Your task to perform on an android device: turn off wifi Image 0: 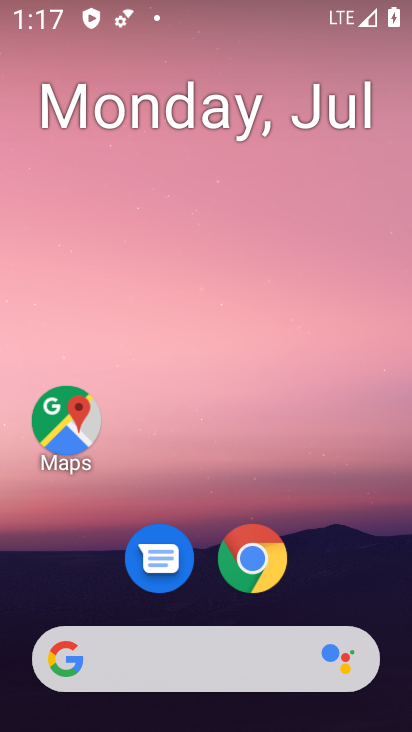
Step 0: drag from (360, 578) to (349, 52)
Your task to perform on an android device: turn off wifi Image 1: 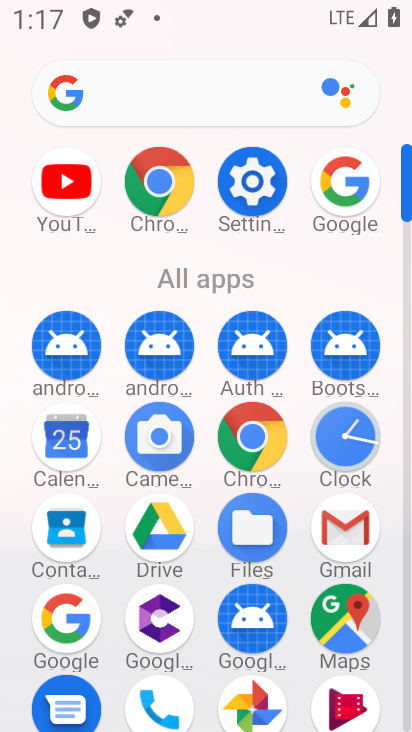
Step 1: click (257, 193)
Your task to perform on an android device: turn off wifi Image 2: 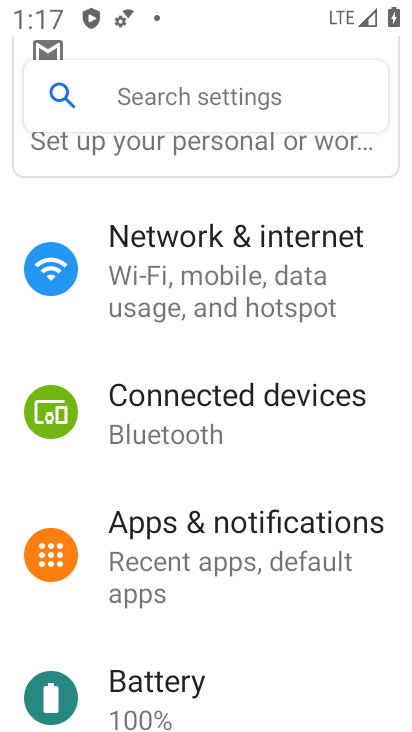
Step 2: drag from (367, 619) to (361, 468)
Your task to perform on an android device: turn off wifi Image 3: 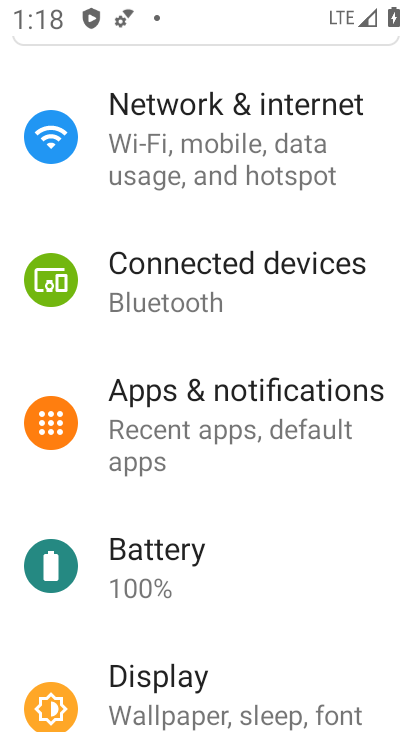
Step 3: drag from (331, 615) to (338, 448)
Your task to perform on an android device: turn off wifi Image 4: 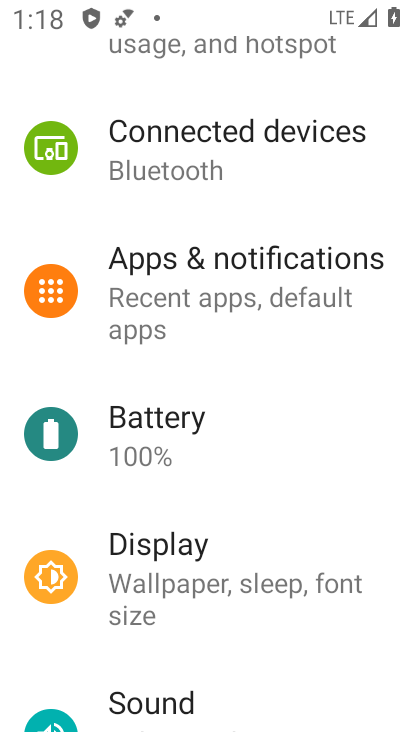
Step 4: drag from (341, 637) to (343, 496)
Your task to perform on an android device: turn off wifi Image 5: 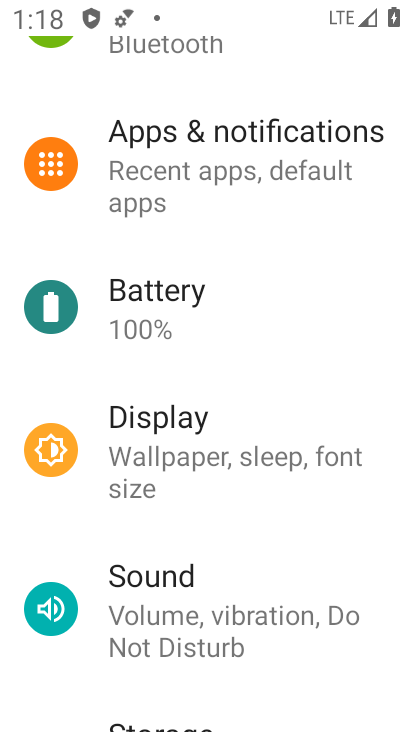
Step 5: drag from (342, 555) to (339, 325)
Your task to perform on an android device: turn off wifi Image 6: 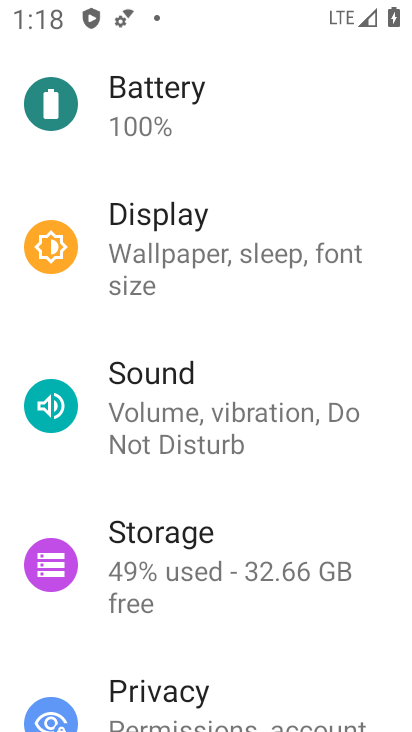
Step 6: drag from (256, 504) to (258, 329)
Your task to perform on an android device: turn off wifi Image 7: 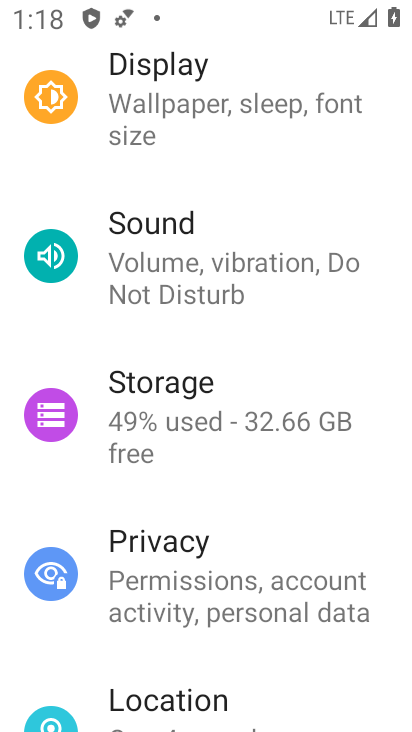
Step 7: drag from (332, 302) to (345, 413)
Your task to perform on an android device: turn off wifi Image 8: 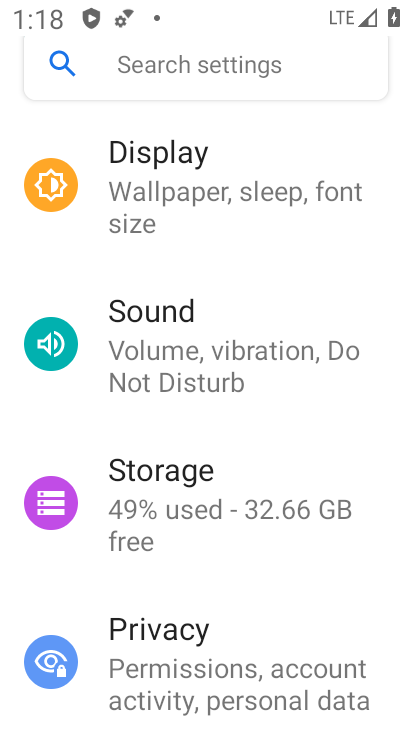
Step 8: drag from (367, 240) to (372, 401)
Your task to perform on an android device: turn off wifi Image 9: 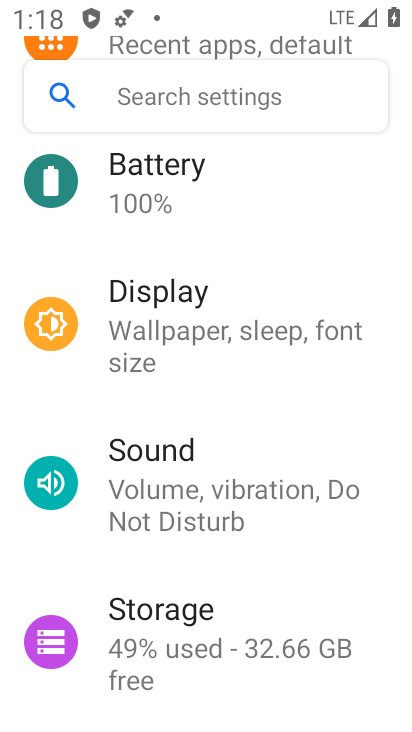
Step 9: drag from (362, 199) to (367, 389)
Your task to perform on an android device: turn off wifi Image 10: 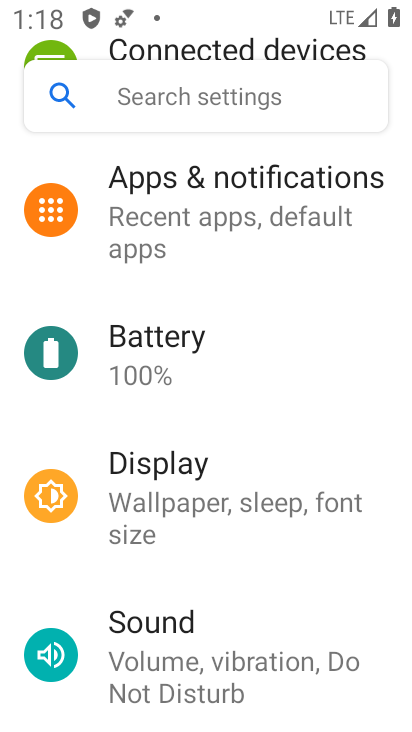
Step 10: drag from (340, 217) to (353, 400)
Your task to perform on an android device: turn off wifi Image 11: 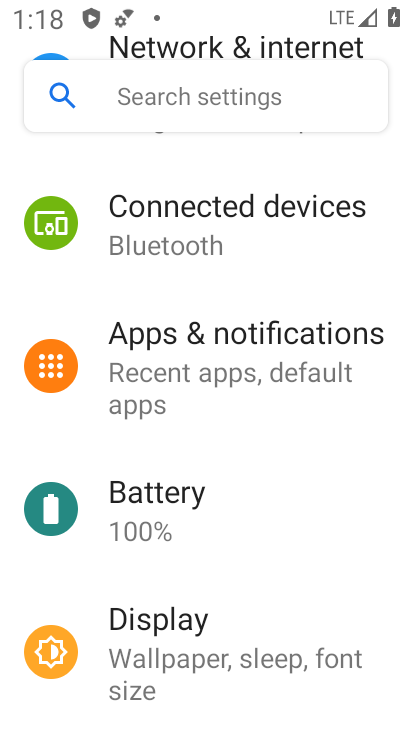
Step 11: drag from (333, 251) to (336, 451)
Your task to perform on an android device: turn off wifi Image 12: 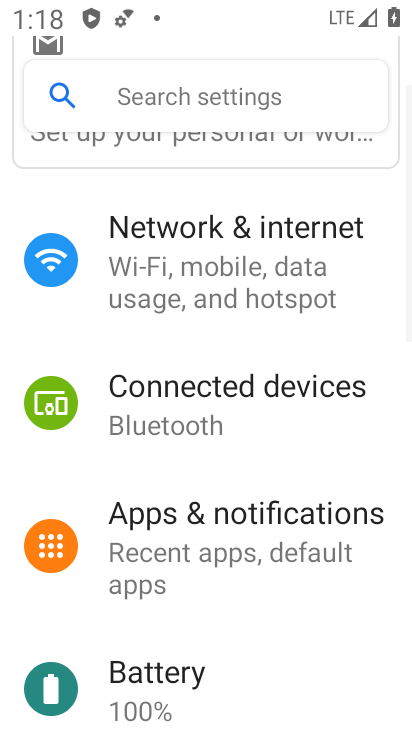
Step 12: click (290, 283)
Your task to perform on an android device: turn off wifi Image 13: 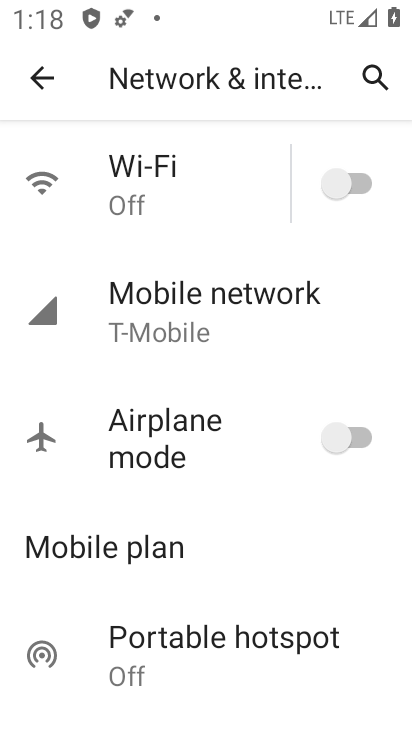
Step 13: task complete